Your task to perform on an android device: open chrome and create a bookmark for the current page Image 0: 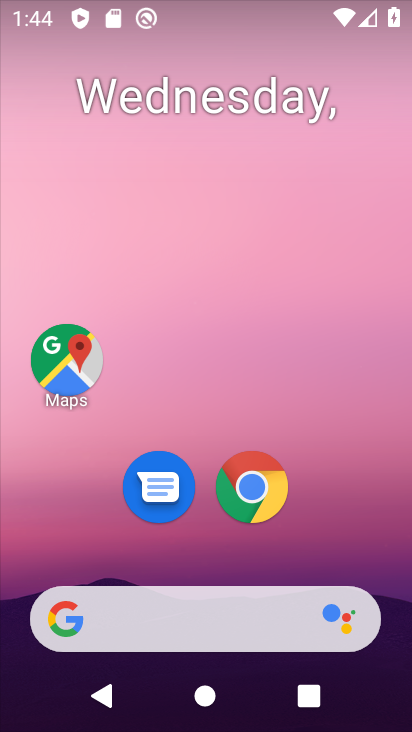
Step 0: click (249, 489)
Your task to perform on an android device: open chrome and create a bookmark for the current page Image 1: 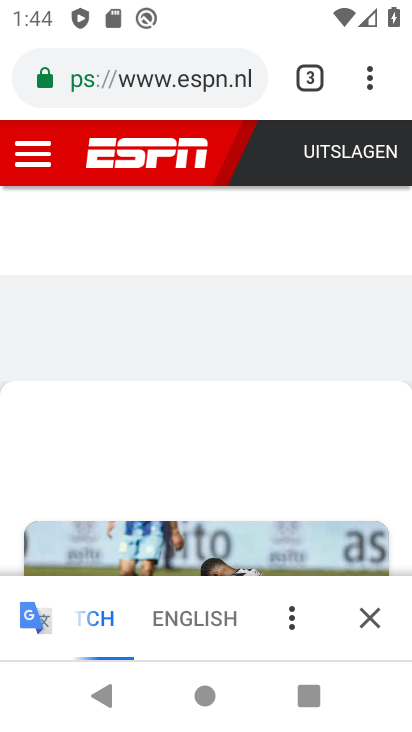
Step 1: click (368, 72)
Your task to perform on an android device: open chrome and create a bookmark for the current page Image 2: 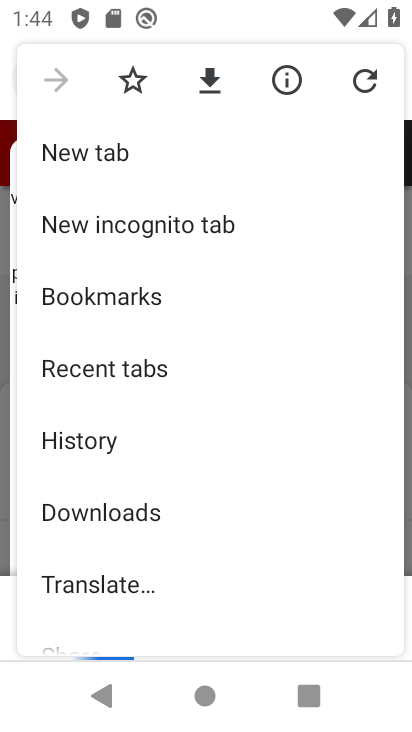
Step 2: click (134, 79)
Your task to perform on an android device: open chrome and create a bookmark for the current page Image 3: 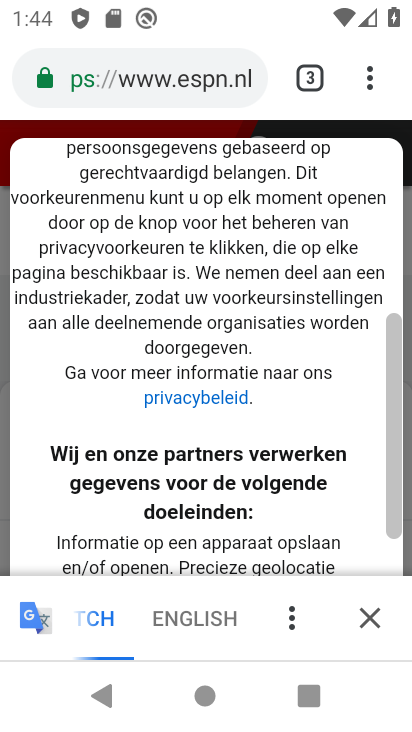
Step 3: task complete